Your task to perform on an android device: Go to Maps Image 0: 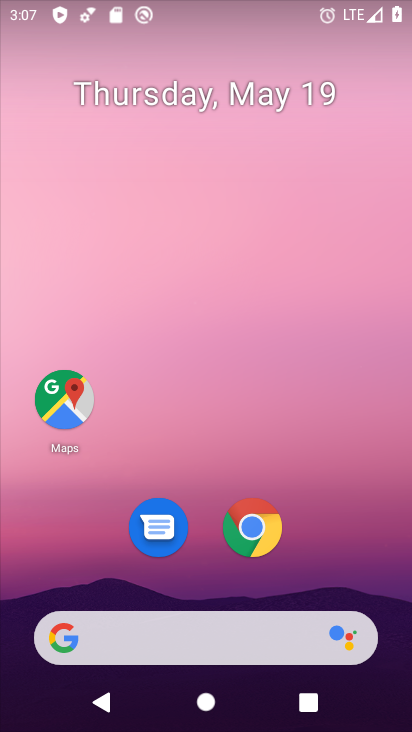
Step 0: click (70, 393)
Your task to perform on an android device: Go to Maps Image 1: 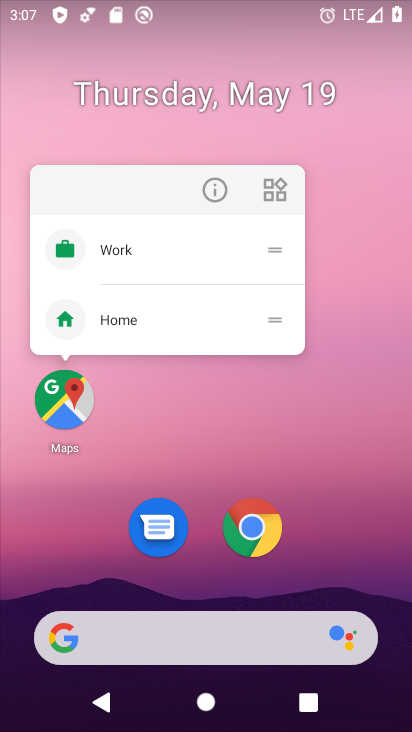
Step 1: click (60, 396)
Your task to perform on an android device: Go to Maps Image 2: 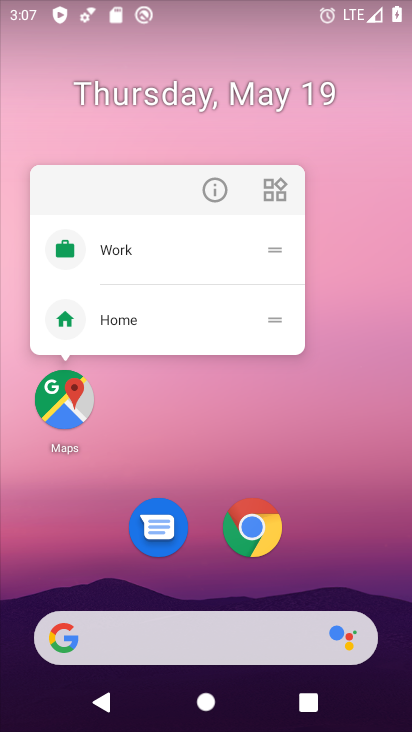
Step 2: click (67, 399)
Your task to perform on an android device: Go to Maps Image 3: 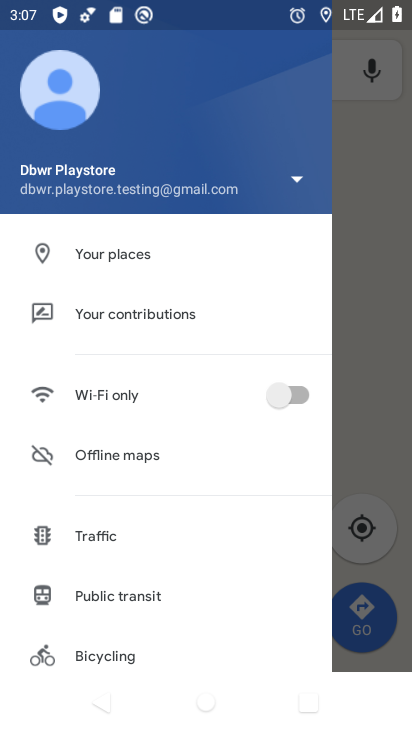
Step 3: task complete